Your task to perform on an android device: Open privacy settings Image 0: 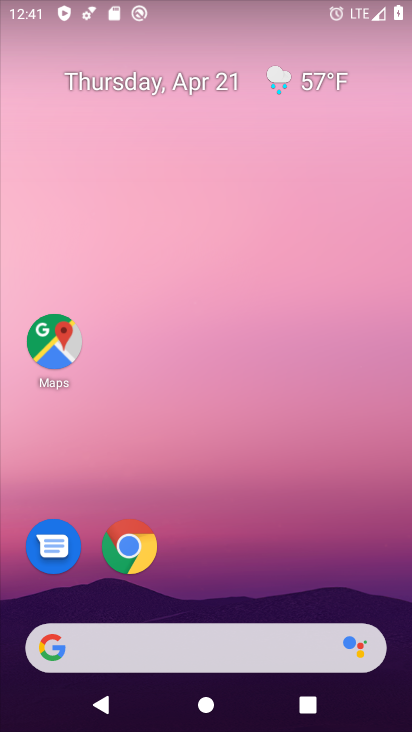
Step 0: drag from (282, 596) to (211, 0)
Your task to perform on an android device: Open privacy settings Image 1: 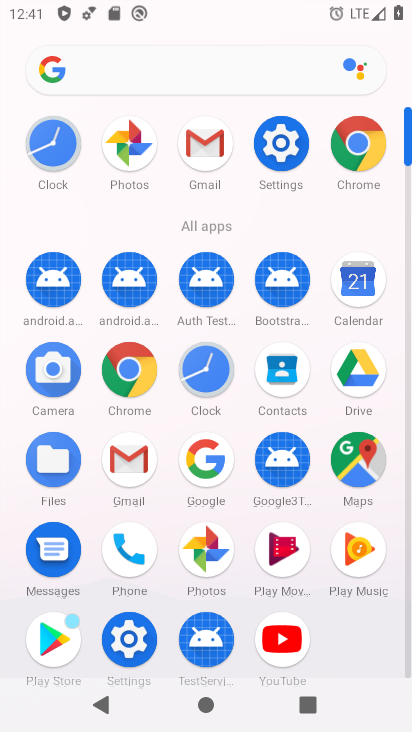
Step 1: click (284, 175)
Your task to perform on an android device: Open privacy settings Image 2: 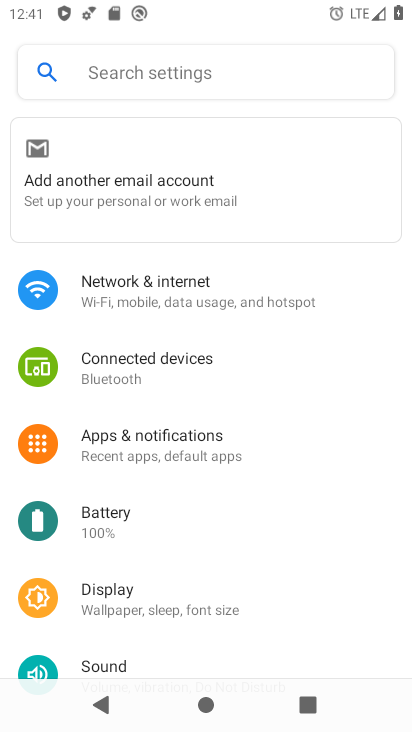
Step 2: drag from (214, 633) to (136, 132)
Your task to perform on an android device: Open privacy settings Image 3: 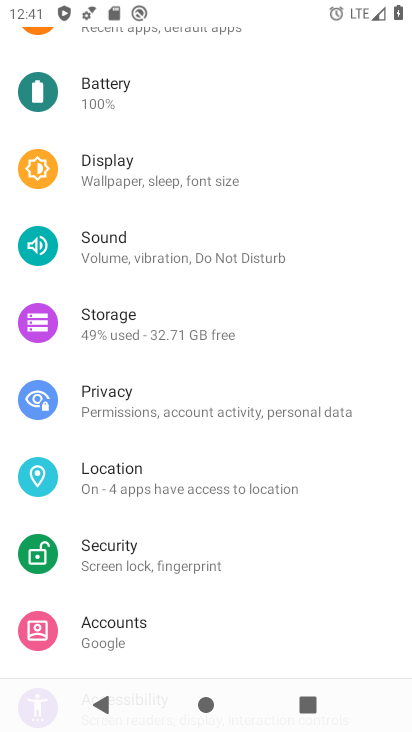
Step 3: drag from (155, 560) to (120, 194)
Your task to perform on an android device: Open privacy settings Image 4: 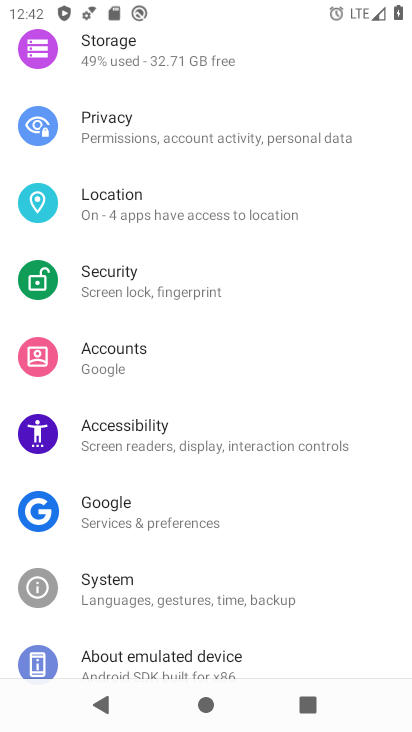
Step 4: drag from (223, 639) to (115, 235)
Your task to perform on an android device: Open privacy settings Image 5: 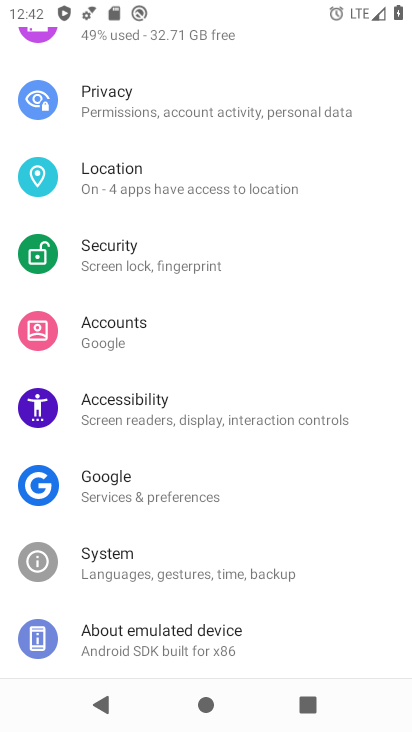
Step 5: click (142, 116)
Your task to perform on an android device: Open privacy settings Image 6: 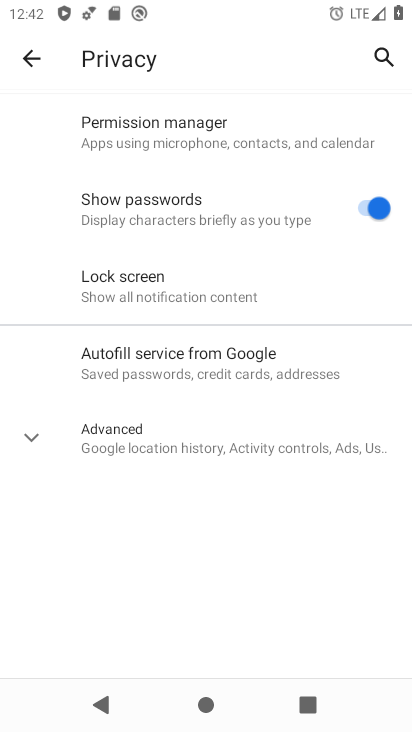
Step 6: task complete